Your task to perform on an android device: Go to wifi settings Image 0: 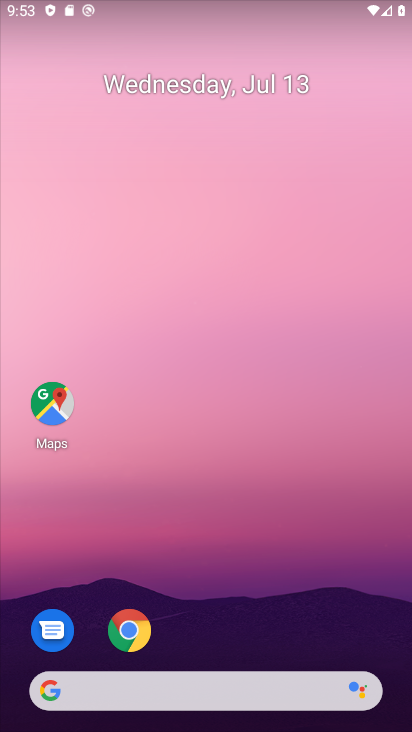
Step 0: drag from (264, 631) to (264, 498)
Your task to perform on an android device: Go to wifi settings Image 1: 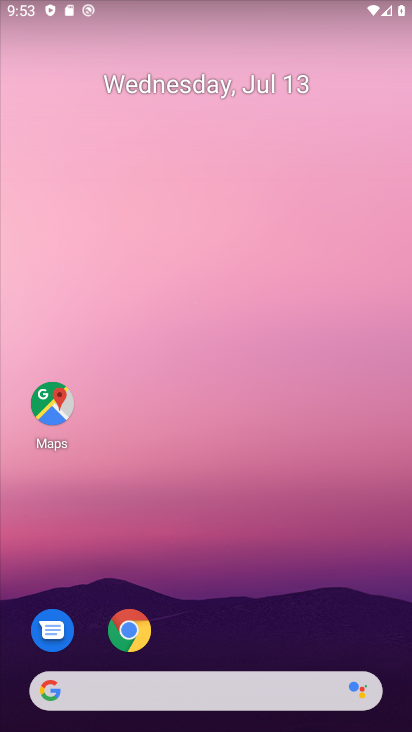
Step 1: drag from (264, 497) to (294, 15)
Your task to perform on an android device: Go to wifi settings Image 2: 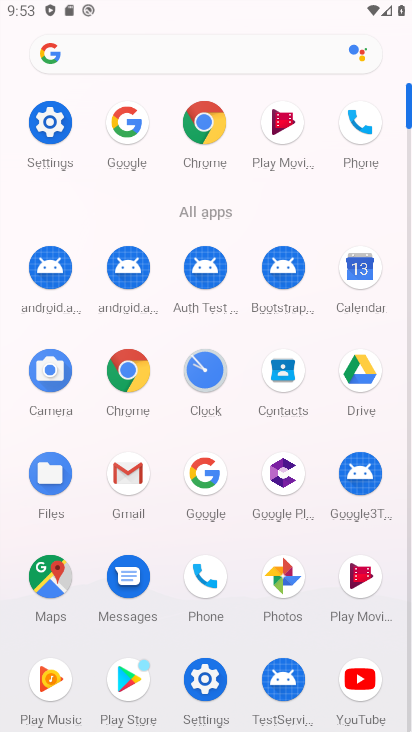
Step 2: click (53, 132)
Your task to perform on an android device: Go to wifi settings Image 3: 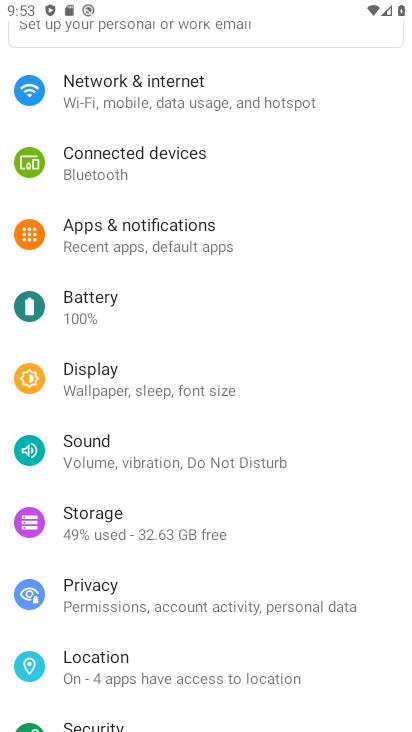
Step 3: click (121, 104)
Your task to perform on an android device: Go to wifi settings Image 4: 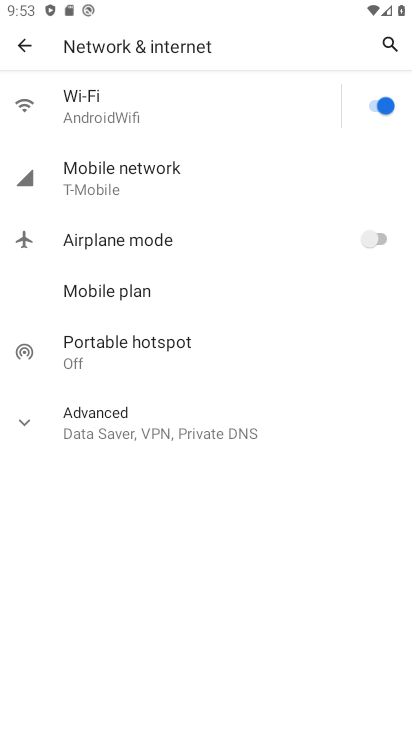
Step 4: click (80, 107)
Your task to perform on an android device: Go to wifi settings Image 5: 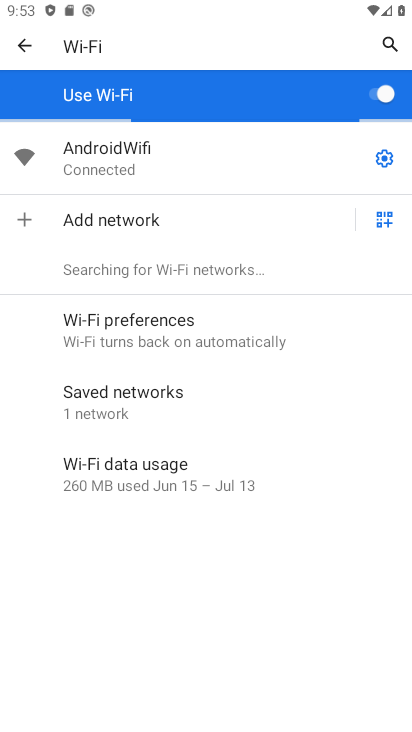
Step 5: task complete